Your task to perform on an android device: What's on my calendar today? Image 0: 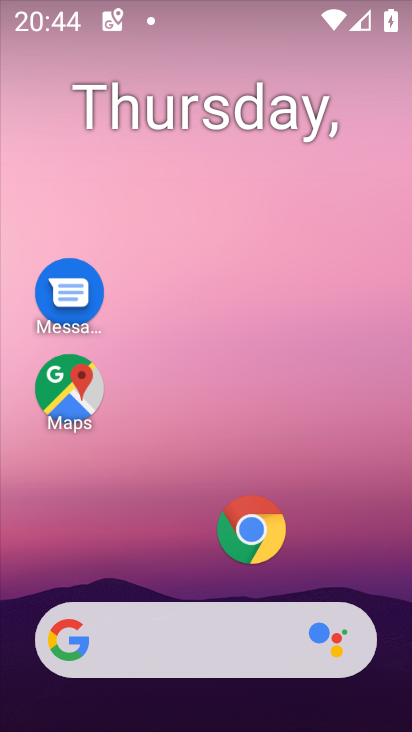
Step 0: click (223, 108)
Your task to perform on an android device: What's on my calendar today? Image 1: 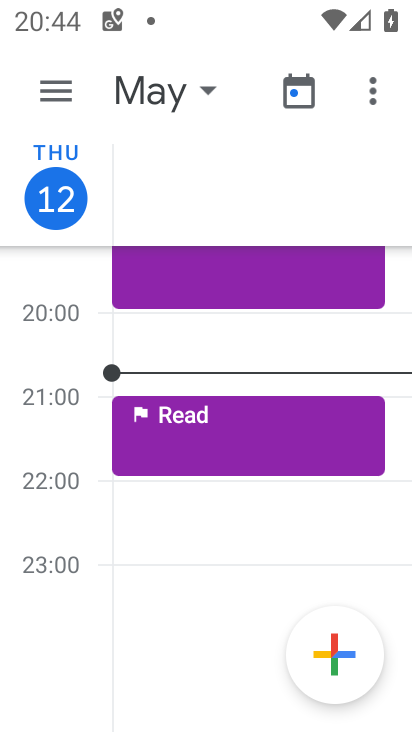
Step 1: task complete